Your task to perform on an android device: check android version Image 0: 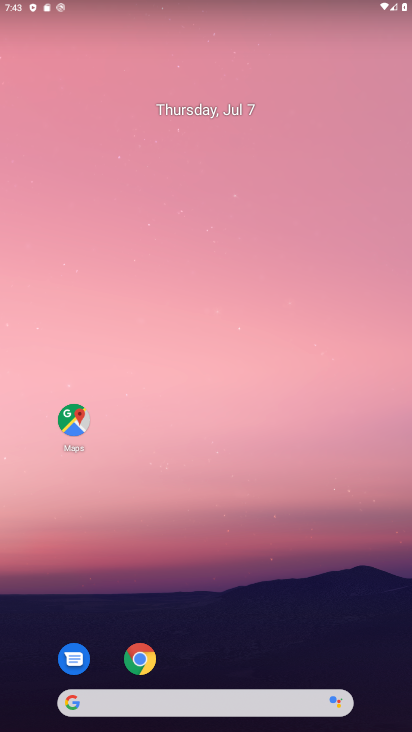
Step 0: drag from (220, 594) to (270, 50)
Your task to perform on an android device: check android version Image 1: 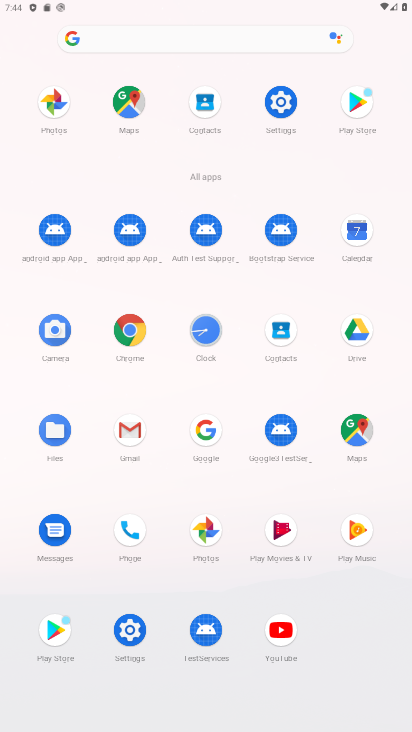
Step 1: click (277, 105)
Your task to perform on an android device: check android version Image 2: 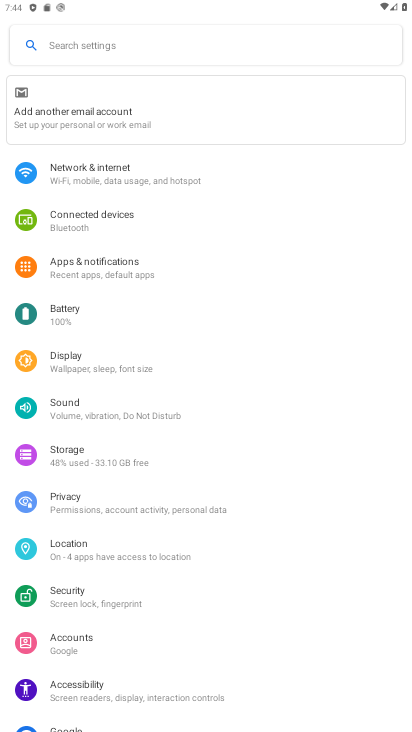
Step 2: drag from (185, 663) to (218, 273)
Your task to perform on an android device: check android version Image 3: 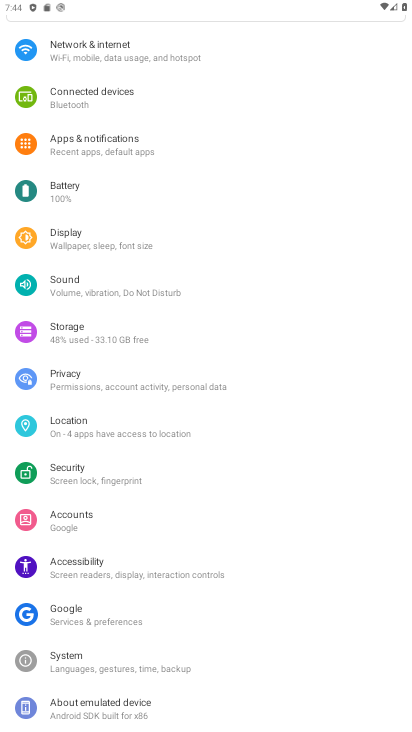
Step 3: click (137, 709)
Your task to perform on an android device: check android version Image 4: 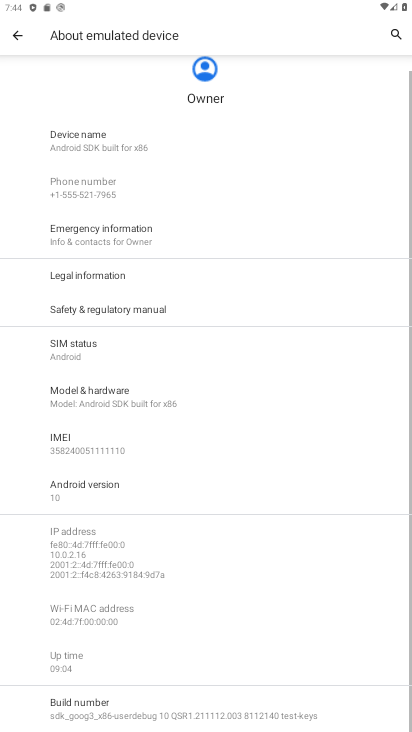
Step 4: click (100, 494)
Your task to perform on an android device: check android version Image 5: 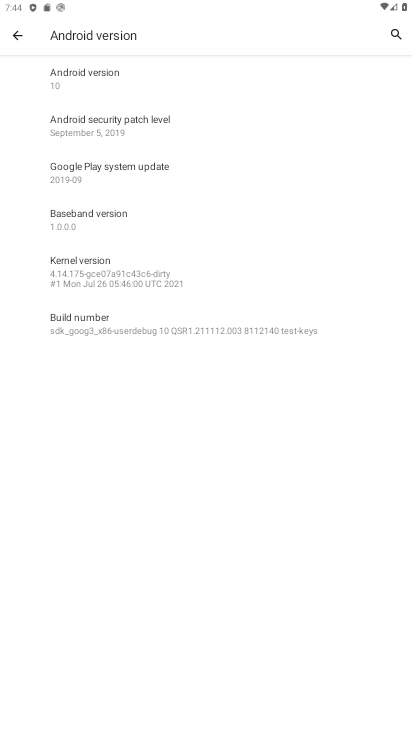
Step 5: task complete